Your task to perform on an android device: Search for apple airpods on ebay.com, select the first entry, and add it to the cart. Image 0: 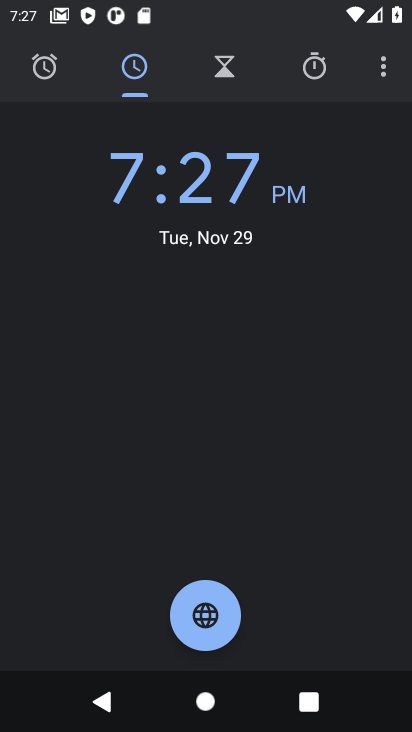
Step 0: press home button
Your task to perform on an android device: Search for apple airpods on ebay.com, select the first entry, and add it to the cart. Image 1: 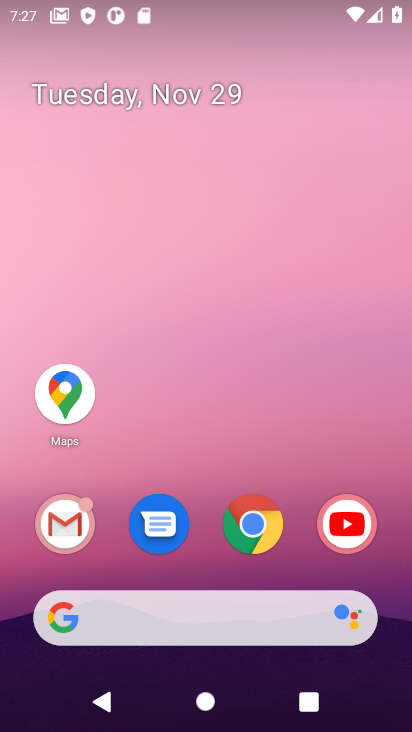
Step 1: click (256, 527)
Your task to perform on an android device: Search for apple airpods on ebay.com, select the first entry, and add it to the cart. Image 2: 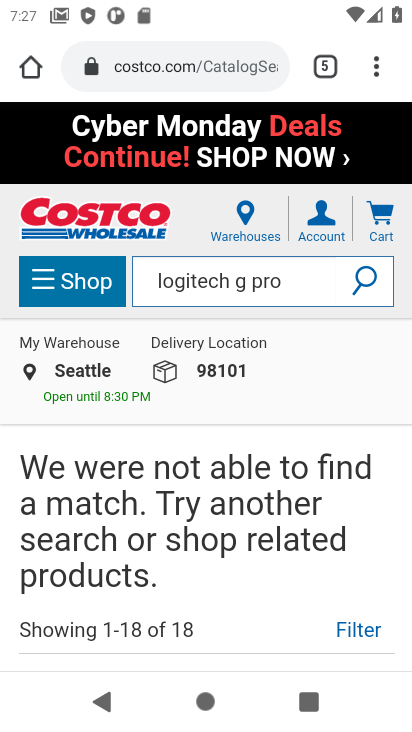
Step 2: click (165, 67)
Your task to perform on an android device: Search for apple airpods on ebay.com, select the first entry, and add it to the cart. Image 3: 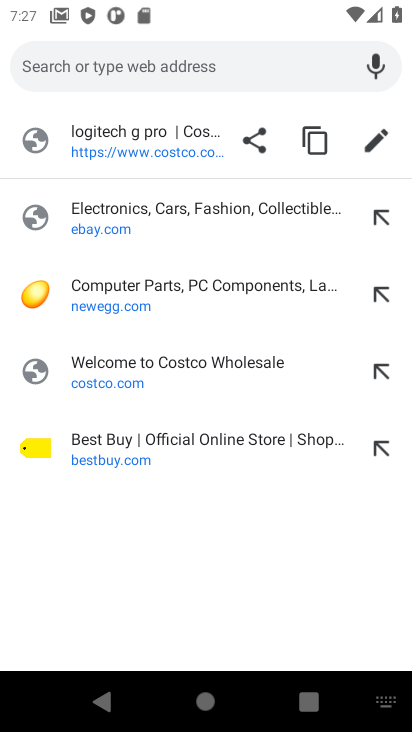
Step 3: click (97, 220)
Your task to perform on an android device: Search for apple airpods on ebay.com, select the first entry, and add it to the cart. Image 4: 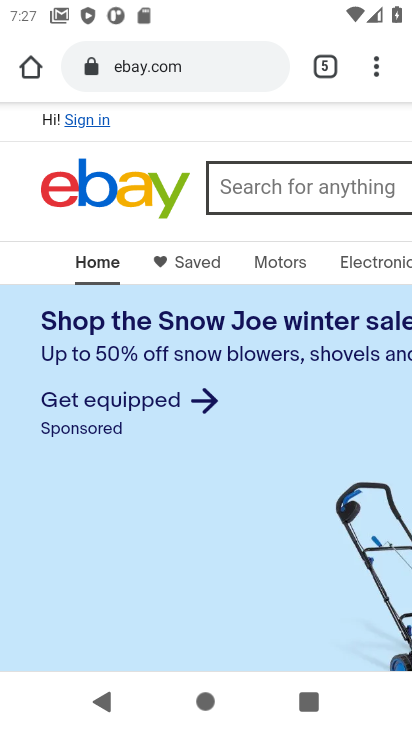
Step 4: click (255, 188)
Your task to perform on an android device: Search for apple airpods on ebay.com, select the first entry, and add it to the cart. Image 5: 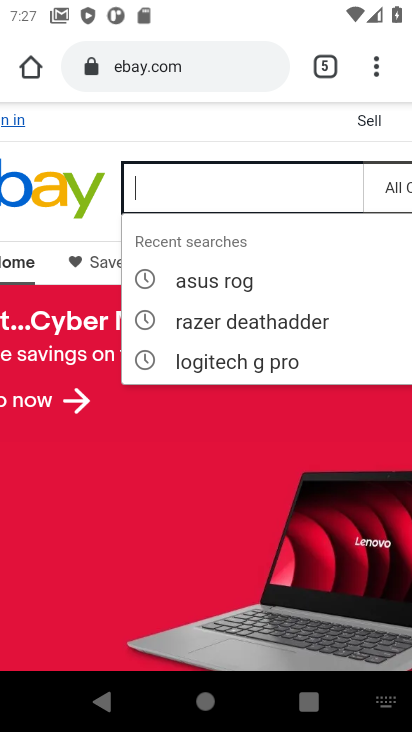
Step 5: type "apple airpods "
Your task to perform on an android device: Search for apple airpods on ebay.com, select the first entry, and add it to the cart. Image 6: 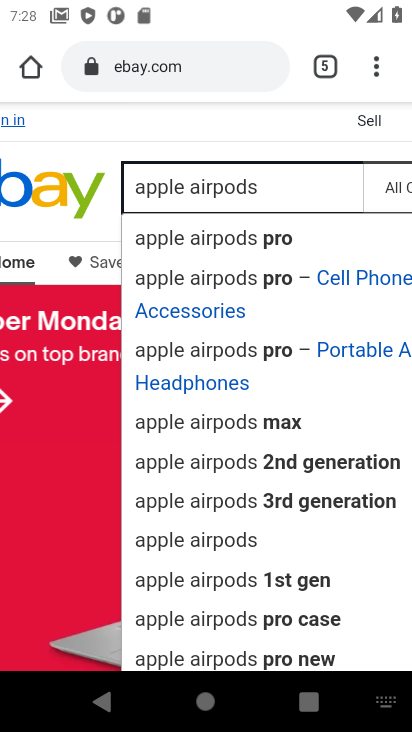
Step 6: click (190, 542)
Your task to perform on an android device: Search for apple airpods on ebay.com, select the first entry, and add it to the cart. Image 7: 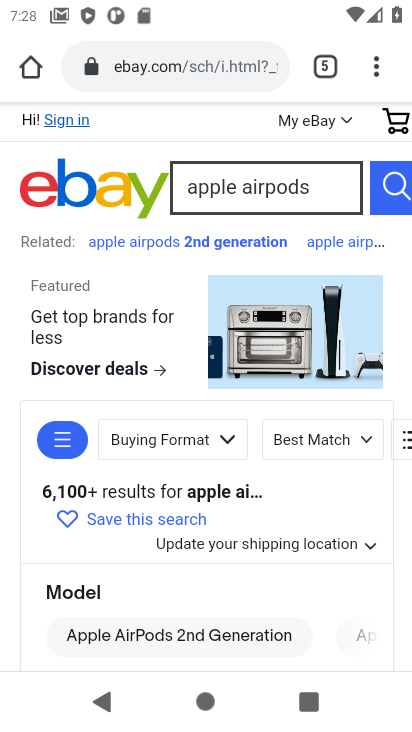
Step 7: drag from (201, 560) to (222, 263)
Your task to perform on an android device: Search for apple airpods on ebay.com, select the first entry, and add it to the cart. Image 8: 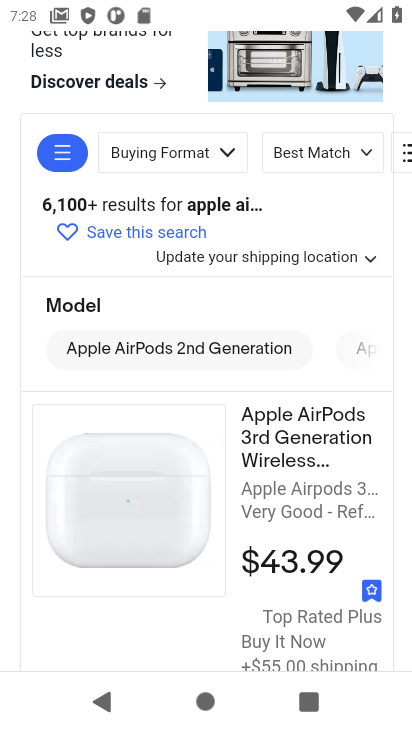
Step 8: click (321, 487)
Your task to perform on an android device: Search for apple airpods on ebay.com, select the first entry, and add it to the cart. Image 9: 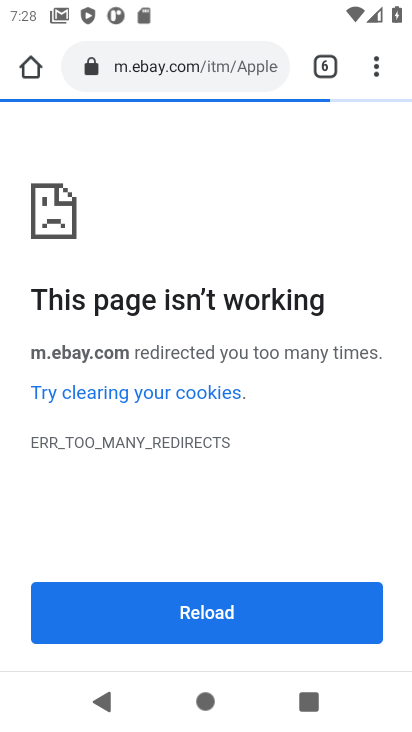
Step 9: task complete